Your task to perform on an android device: make emails show in primary in the gmail app Image 0: 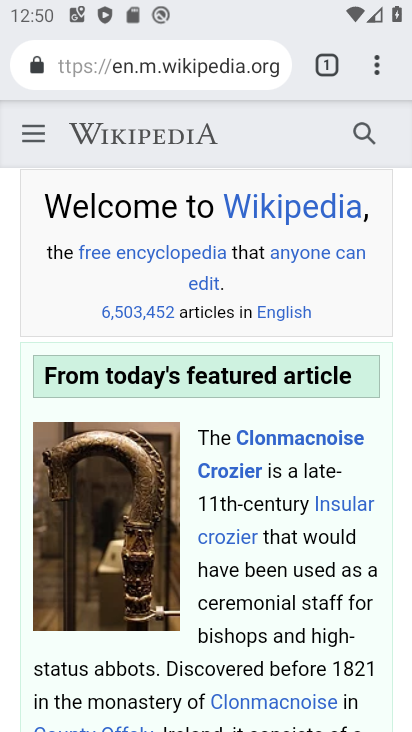
Step 0: press home button
Your task to perform on an android device: make emails show in primary in the gmail app Image 1: 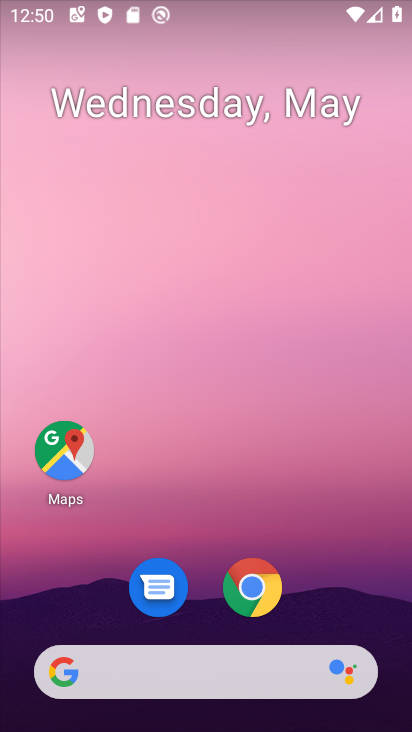
Step 1: drag from (377, 611) to (390, 203)
Your task to perform on an android device: make emails show in primary in the gmail app Image 2: 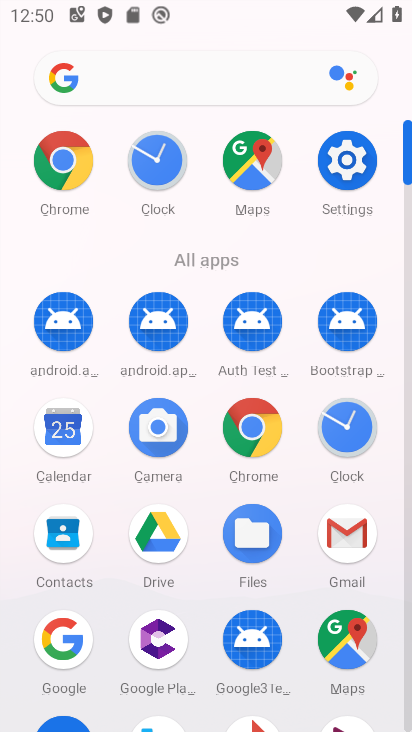
Step 2: click (359, 535)
Your task to perform on an android device: make emails show in primary in the gmail app Image 3: 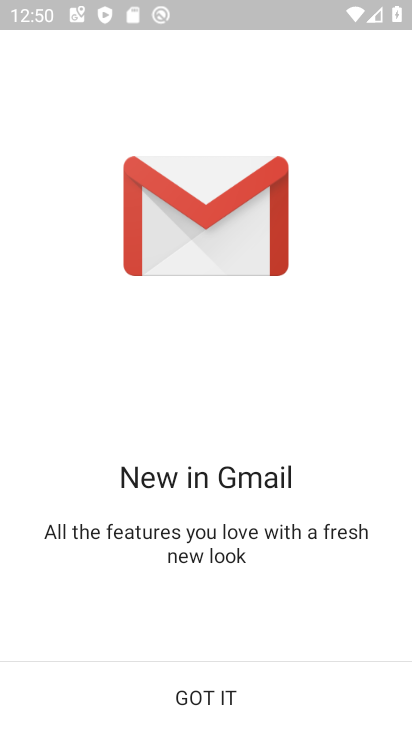
Step 3: click (252, 688)
Your task to perform on an android device: make emails show in primary in the gmail app Image 4: 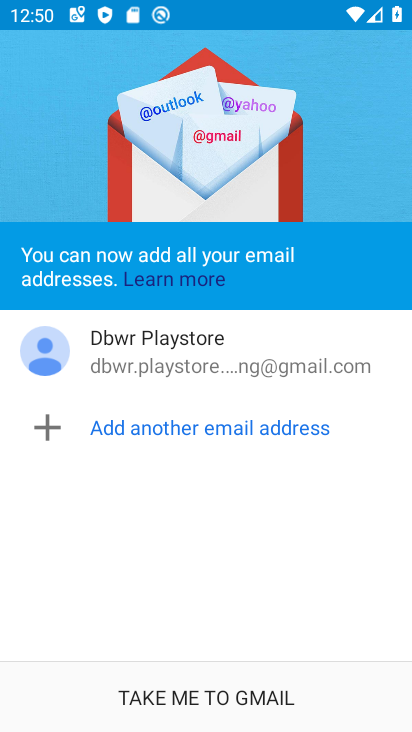
Step 4: click (252, 688)
Your task to perform on an android device: make emails show in primary in the gmail app Image 5: 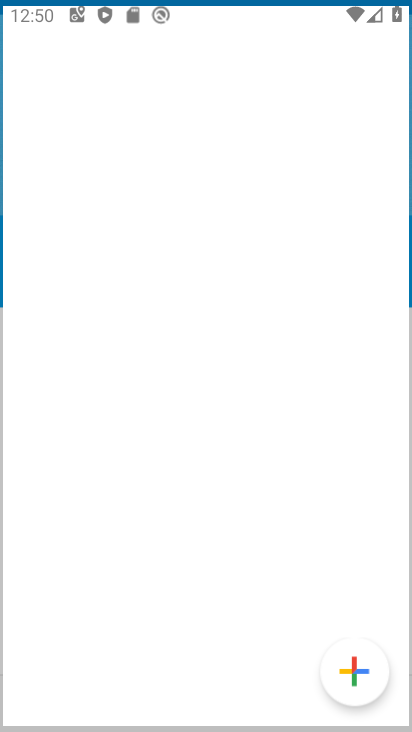
Step 5: click (252, 688)
Your task to perform on an android device: make emails show in primary in the gmail app Image 6: 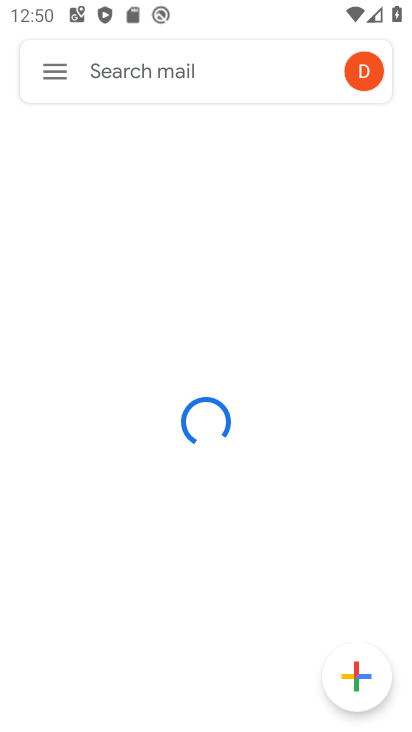
Step 6: click (52, 73)
Your task to perform on an android device: make emails show in primary in the gmail app Image 7: 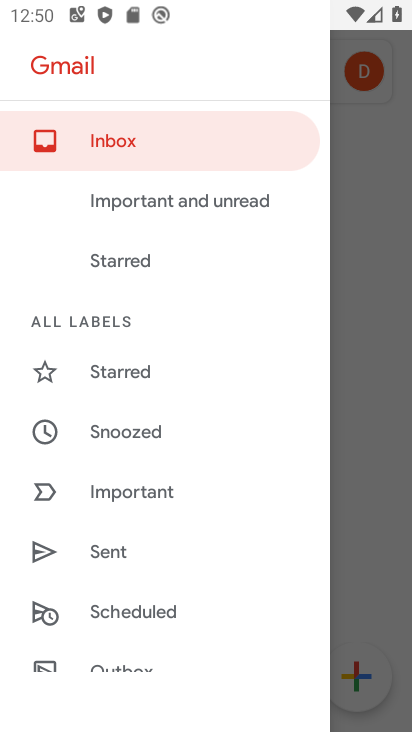
Step 7: drag from (239, 492) to (267, 387)
Your task to perform on an android device: make emails show in primary in the gmail app Image 8: 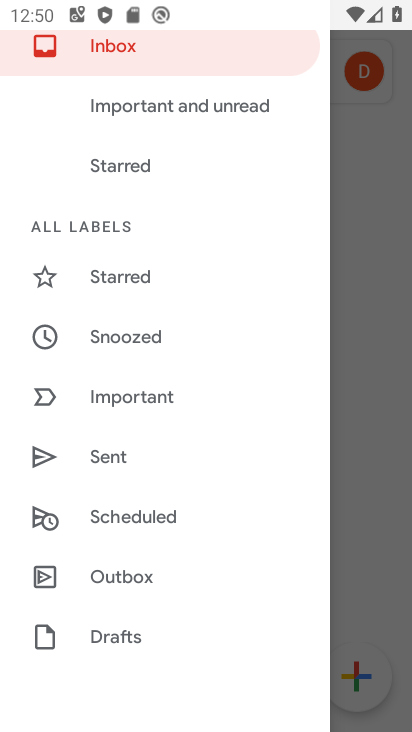
Step 8: drag from (244, 521) to (261, 439)
Your task to perform on an android device: make emails show in primary in the gmail app Image 9: 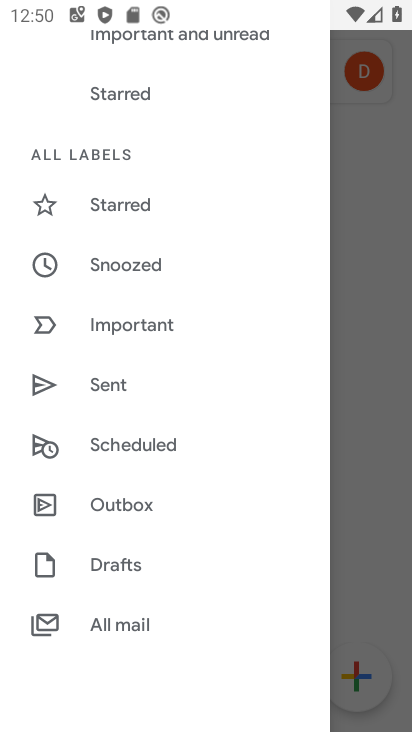
Step 9: drag from (253, 526) to (254, 407)
Your task to perform on an android device: make emails show in primary in the gmail app Image 10: 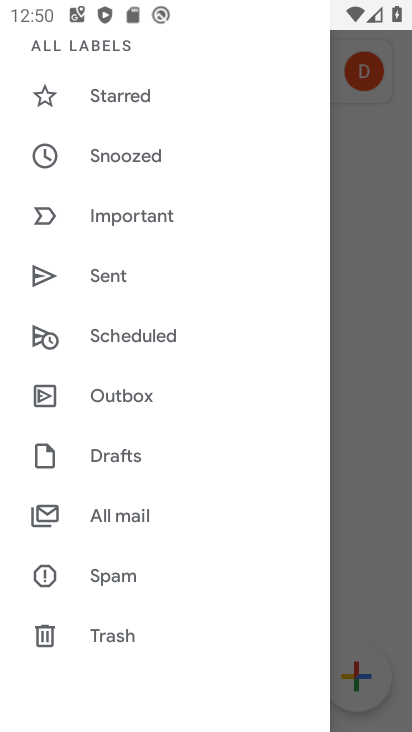
Step 10: drag from (256, 567) to (269, 476)
Your task to perform on an android device: make emails show in primary in the gmail app Image 11: 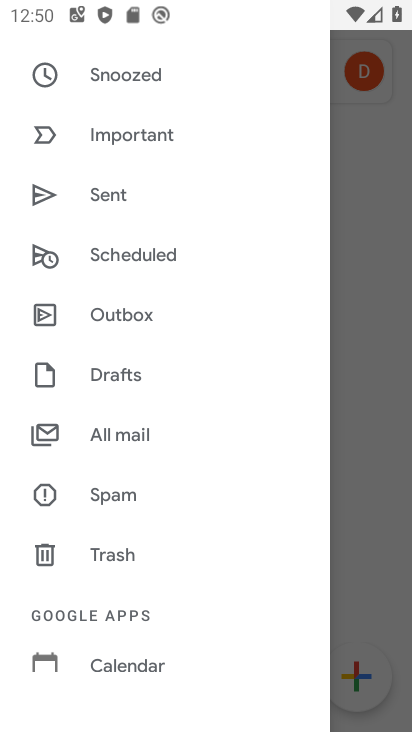
Step 11: drag from (254, 578) to (280, 470)
Your task to perform on an android device: make emails show in primary in the gmail app Image 12: 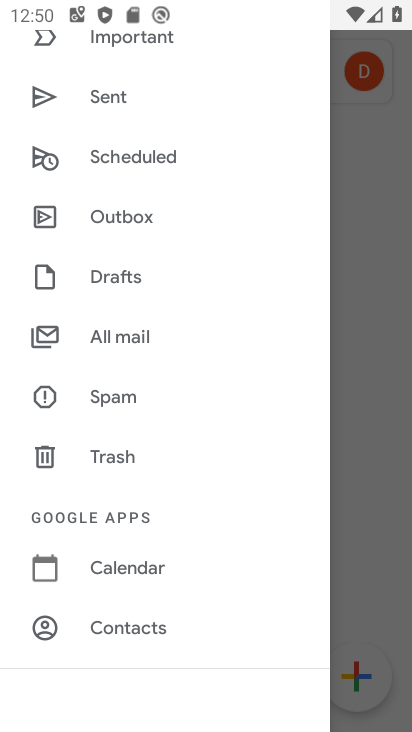
Step 12: drag from (260, 573) to (255, 481)
Your task to perform on an android device: make emails show in primary in the gmail app Image 13: 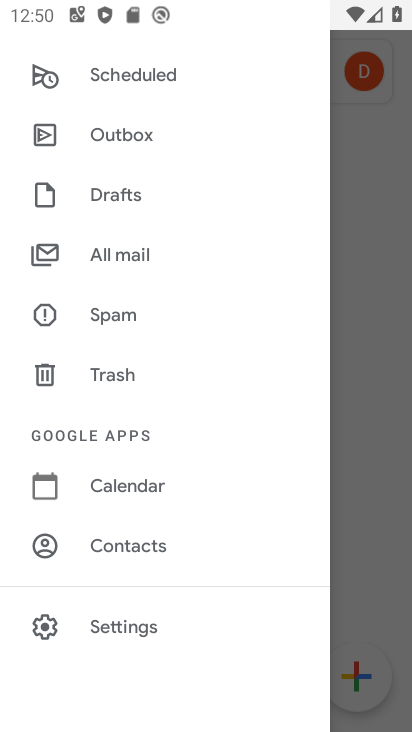
Step 13: drag from (236, 582) to (246, 489)
Your task to perform on an android device: make emails show in primary in the gmail app Image 14: 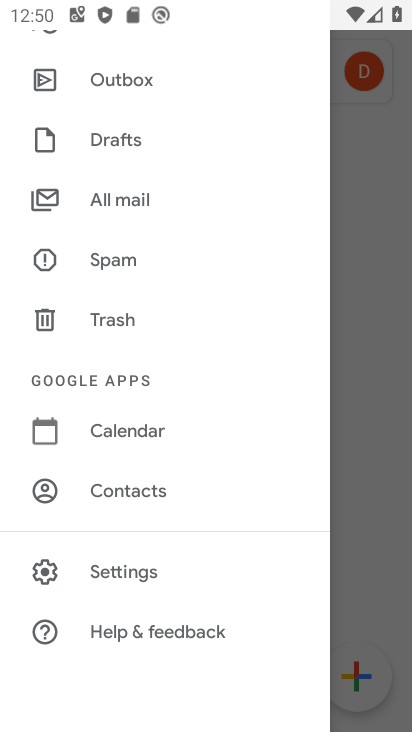
Step 14: click (145, 586)
Your task to perform on an android device: make emails show in primary in the gmail app Image 15: 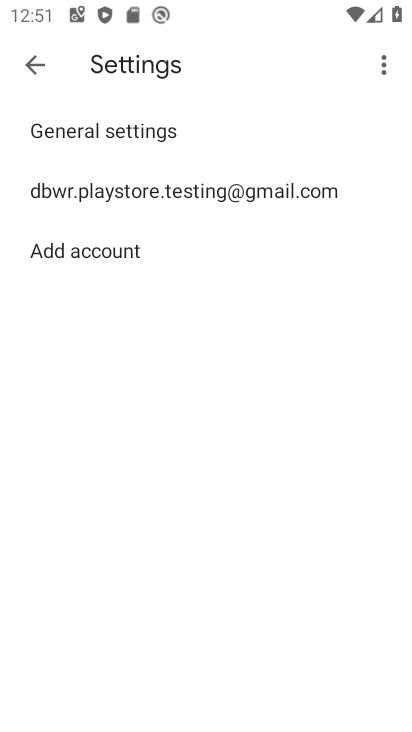
Step 15: click (286, 189)
Your task to perform on an android device: make emails show in primary in the gmail app Image 16: 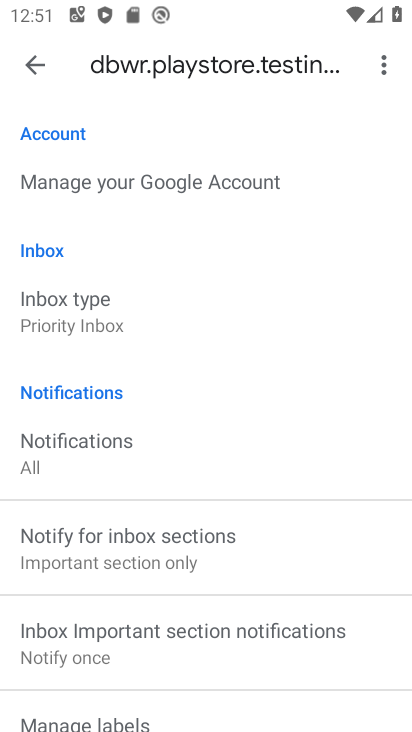
Step 16: drag from (329, 467) to (321, 340)
Your task to perform on an android device: make emails show in primary in the gmail app Image 17: 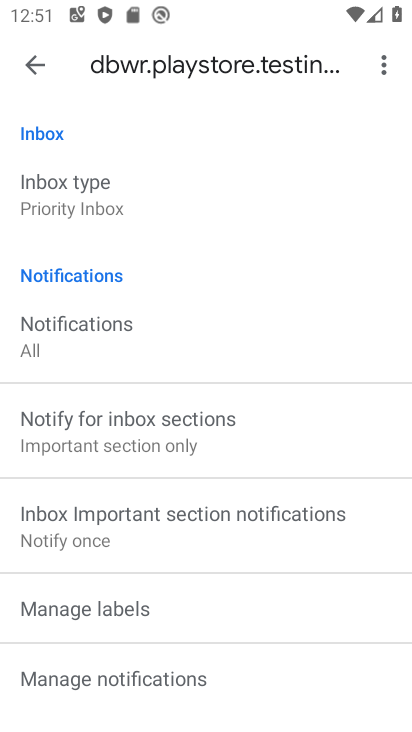
Step 17: drag from (313, 469) to (321, 385)
Your task to perform on an android device: make emails show in primary in the gmail app Image 18: 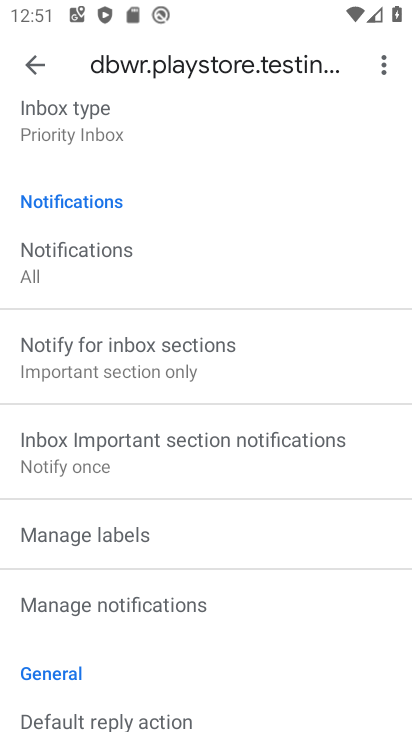
Step 18: drag from (339, 533) to (355, 409)
Your task to perform on an android device: make emails show in primary in the gmail app Image 19: 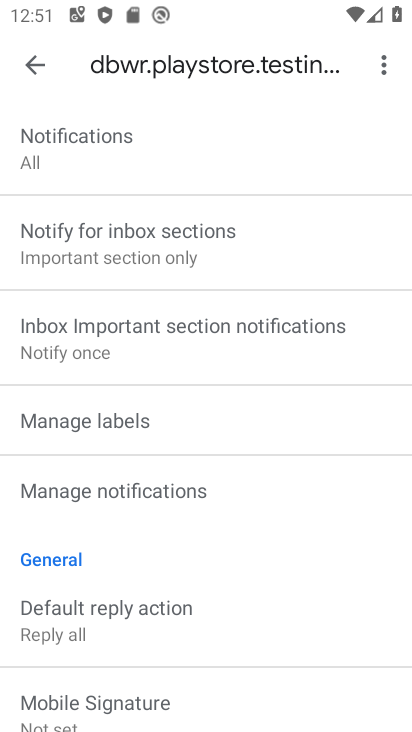
Step 19: drag from (351, 543) to (358, 390)
Your task to perform on an android device: make emails show in primary in the gmail app Image 20: 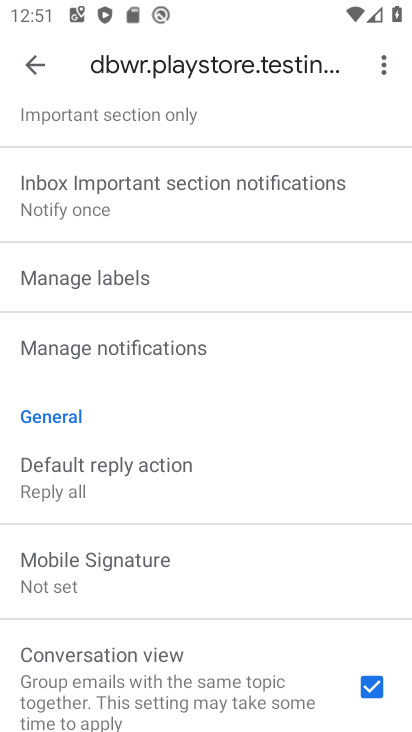
Step 20: drag from (339, 587) to (347, 478)
Your task to perform on an android device: make emails show in primary in the gmail app Image 21: 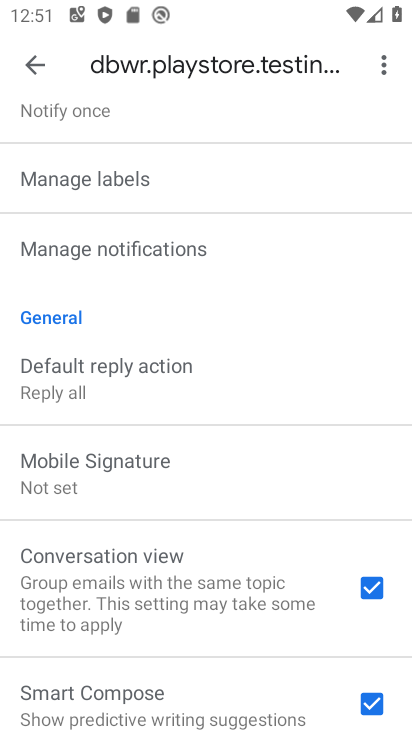
Step 21: drag from (294, 620) to (307, 496)
Your task to perform on an android device: make emails show in primary in the gmail app Image 22: 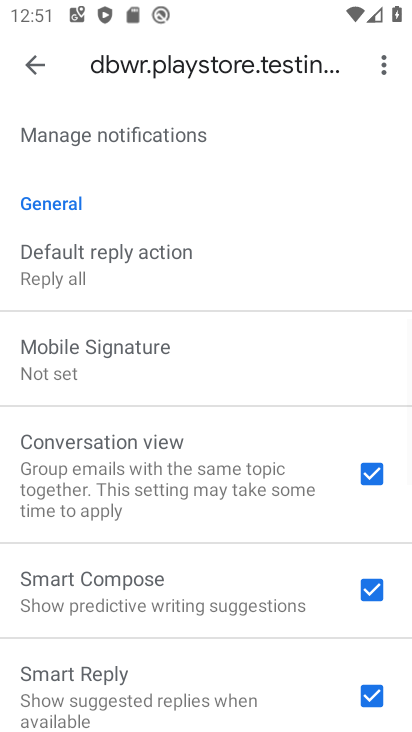
Step 22: drag from (295, 266) to (285, 380)
Your task to perform on an android device: make emails show in primary in the gmail app Image 23: 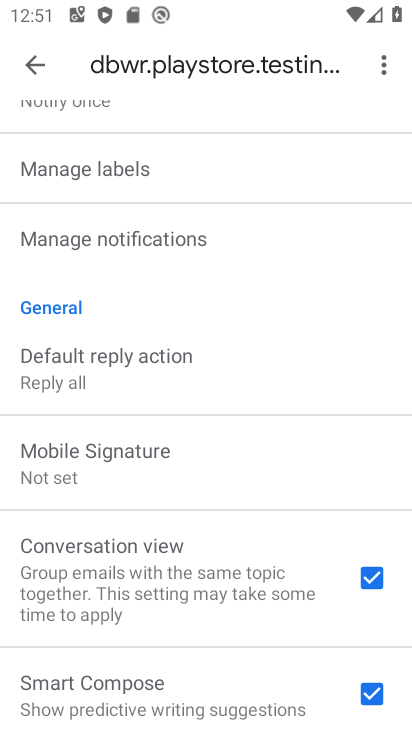
Step 23: drag from (311, 239) to (321, 356)
Your task to perform on an android device: make emails show in primary in the gmail app Image 24: 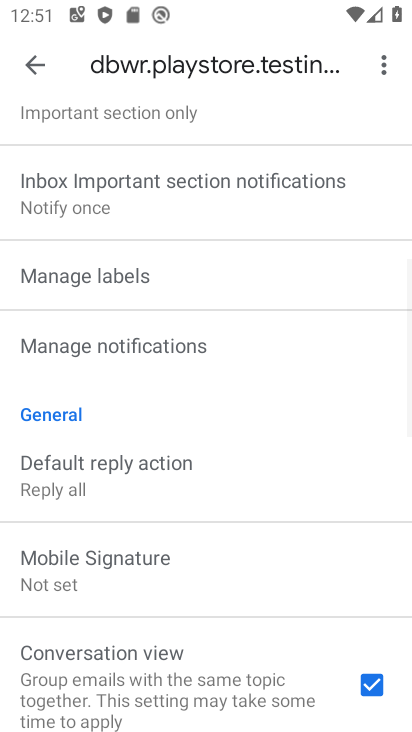
Step 24: drag from (305, 221) to (309, 310)
Your task to perform on an android device: make emails show in primary in the gmail app Image 25: 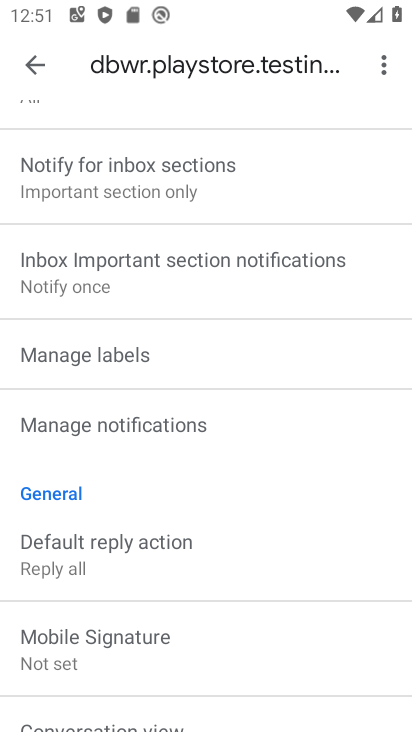
Step 25: drag from (335, 173) to (343, 332)
Your task to perform on an android device: make emails show in primary in the gmail app Image 26: 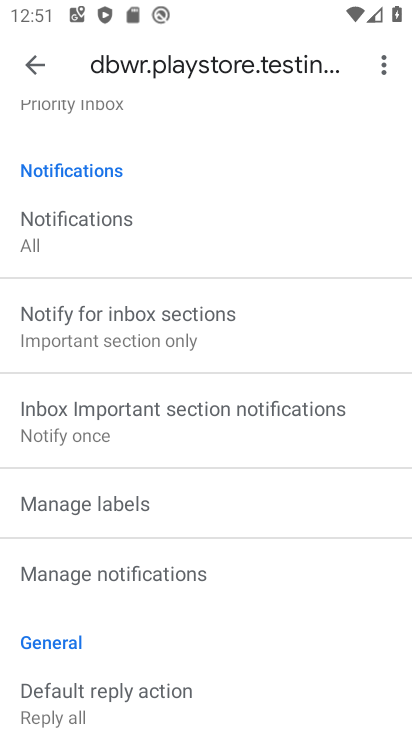
Step 26: drag from (345, 166) to (364, 333)
Your task to perform on an android device: make emails show in primary in the gmail app Image 27: 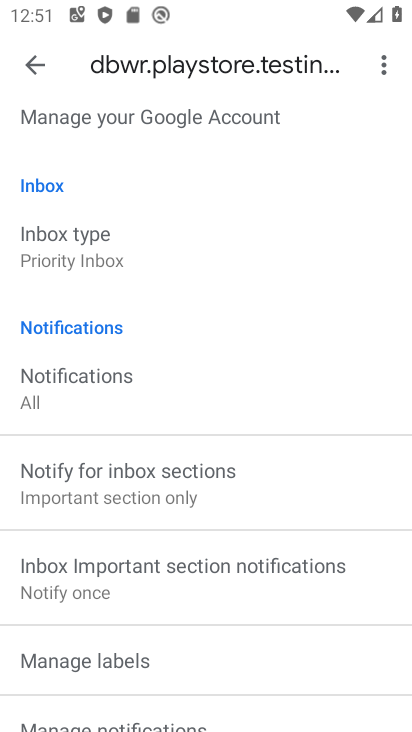
Step 27: drag from (364, 205) to (354, 291)
Your task to perform on an android device: make emails show in primary in the gmail app Image 28: 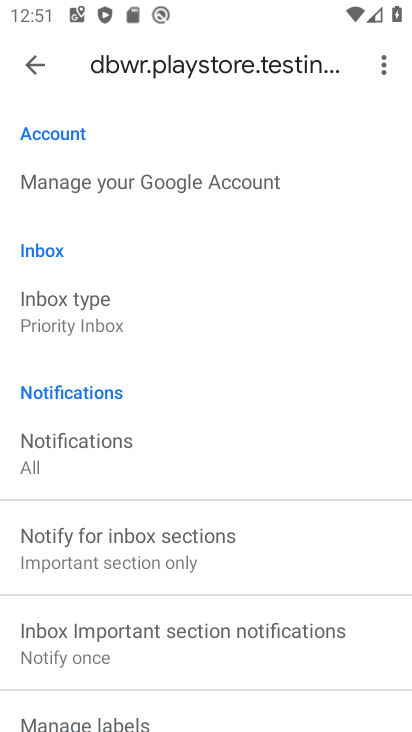
Step 28: click (108, 324)
Your task to perform on an android device: make emails show in primary in the gmail app Image 29: 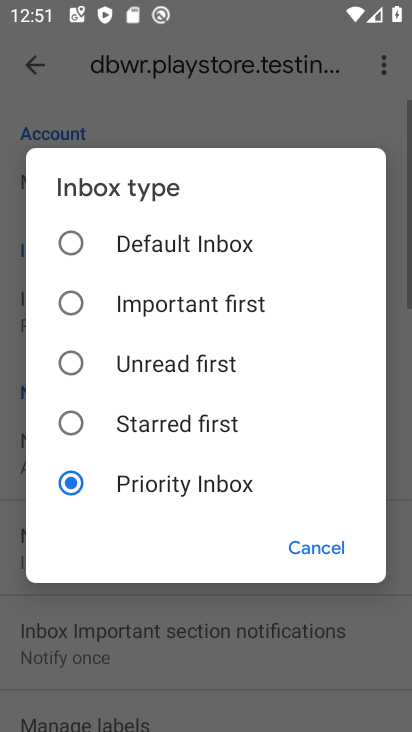
Step 29: click (199, 250)
Your task to perform on an android device: make emails show in primary in the gmail app Image 30: 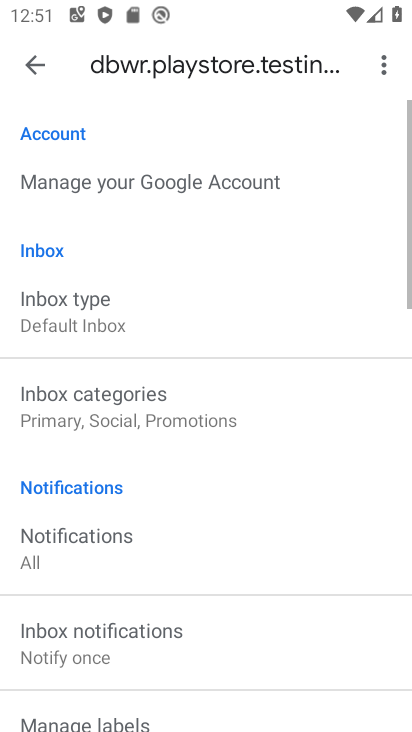
Step 30: click (157, 425)
Your task to perform on an android device: make emails show in primary in the gmail app Image 31: 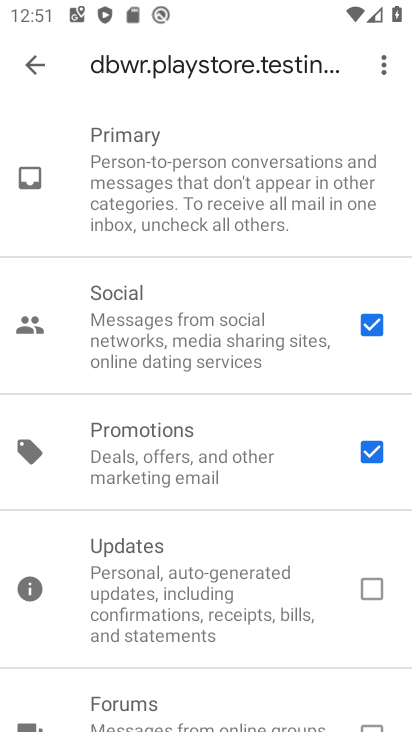
Step 31: click (373, 330)
Your task to perform on an android device: make emails show in primary in the gmail app Image 32: 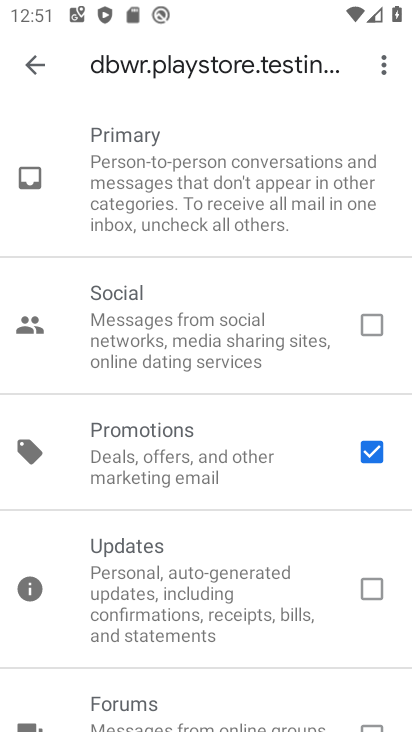
Step 32: click (375, 458)
Your task to perform on an android device: make emails show in primary in the gmail app Image 33: 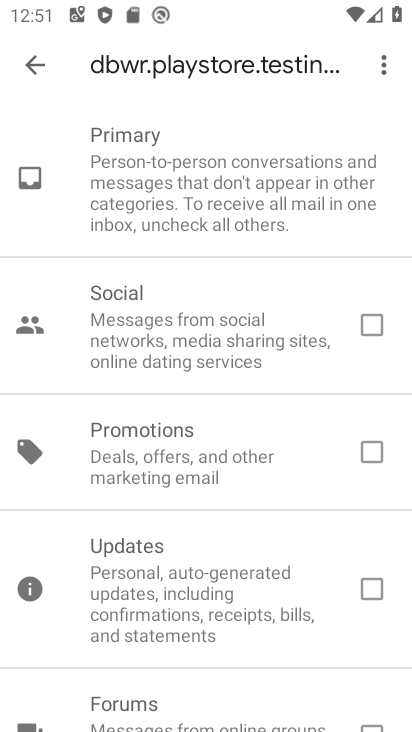
Step 33: task complete